Your task to perform on an android device: Open location settings Image 0: 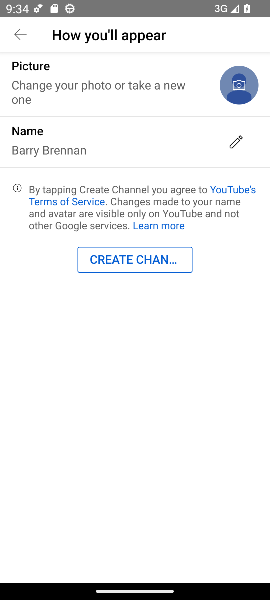
Step 0: press home button
Your task to perform on an android device: Open location settings Image 1: 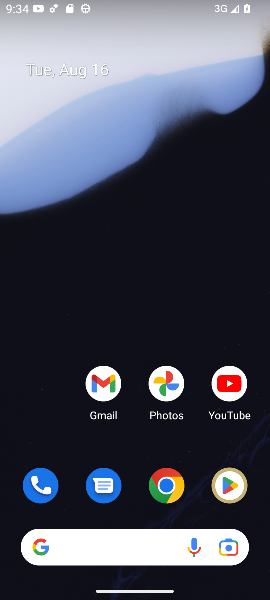
Step 1: drag from (136, 448) to (99, 177)
Your task to perform on an android device: Open location settings Image 2: 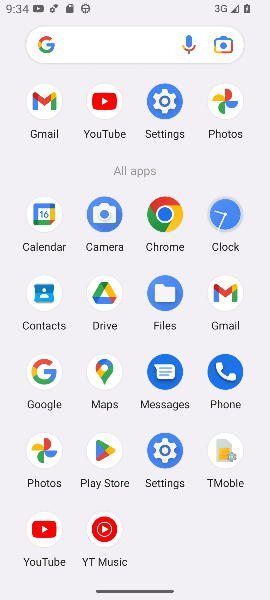
Step 2: click (167, 110)
Your task to perform on an android device: Open location settings Image 3: 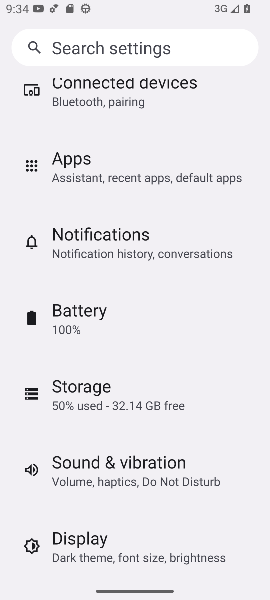
Step 3: drag from (170, 505) to (114, 247)
Your task to perform on an android device: Open location settings Image 4: 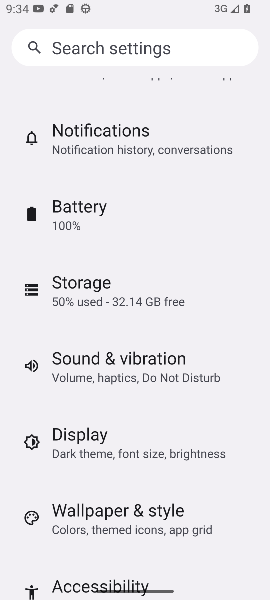
Step 4: drag from (150, 460) to (76, 137)
Your task to perform on an android device: Open location settings Image 5: 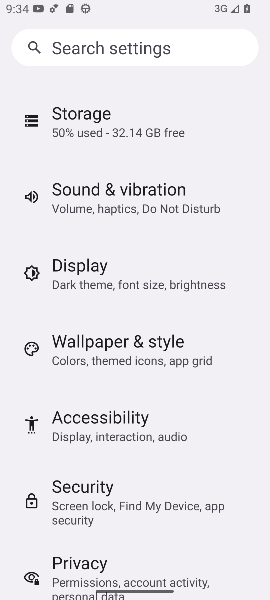
Step 5: drag from (96, 399) to (49, 162)
Your task to perform on an android device: Open location settings Image 6: 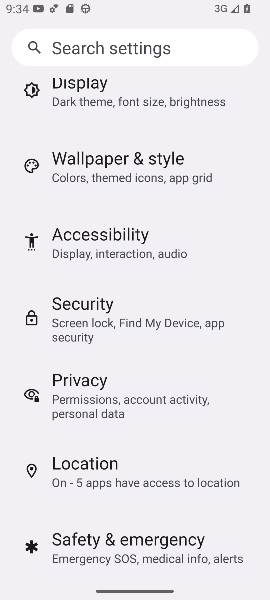
Step 6: click (121, 484)
Your task to perform on an android device: Open location settings Image 7: 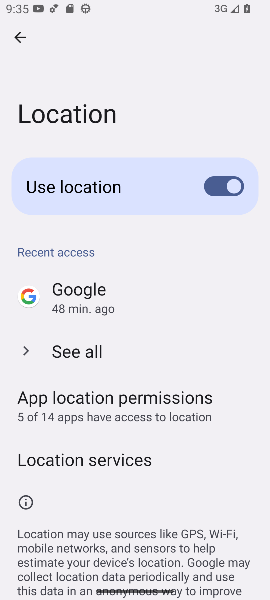
Step 7: task complete